Your task to perform on an android device: open chrome privacy settings Image 0: 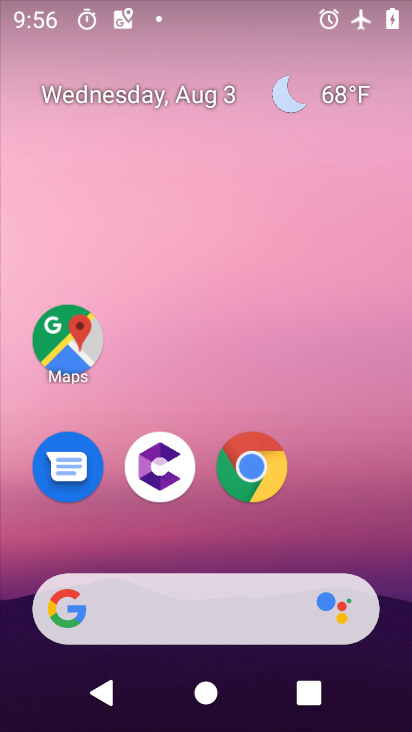
Step 0: drag from (345, 477) to (349, 72)
Your task to perform on an android device: open chrome privacy settings Image 1: 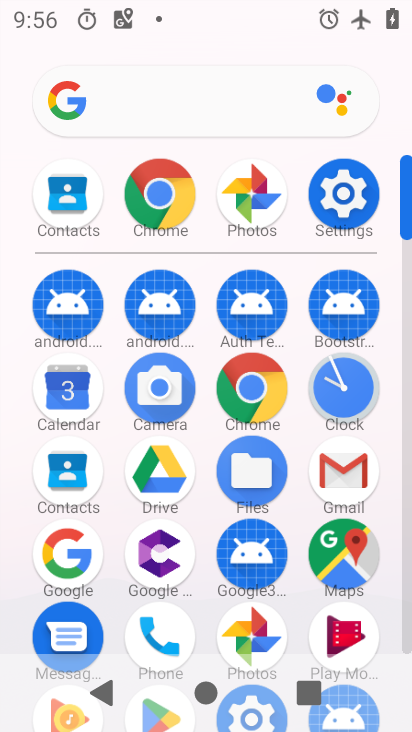
Step 1: click (247, 379)
Your task to perform on an android device: open chrome privacy settings Image 2: 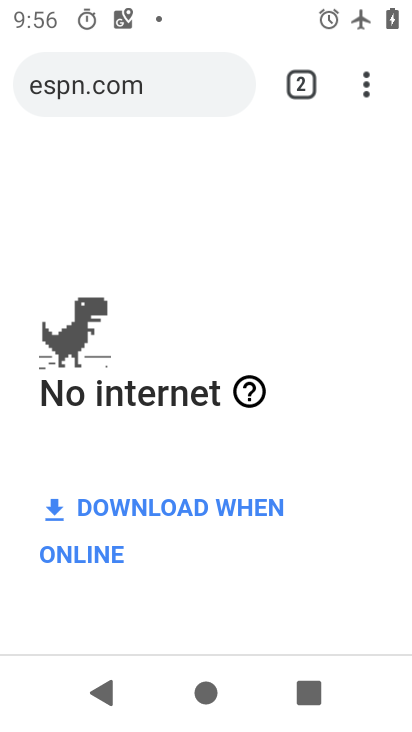
Step 2: drag from (361, 78) to (121, 505)
Your task to perform on an android device: open chrome privacy settings Image 3: 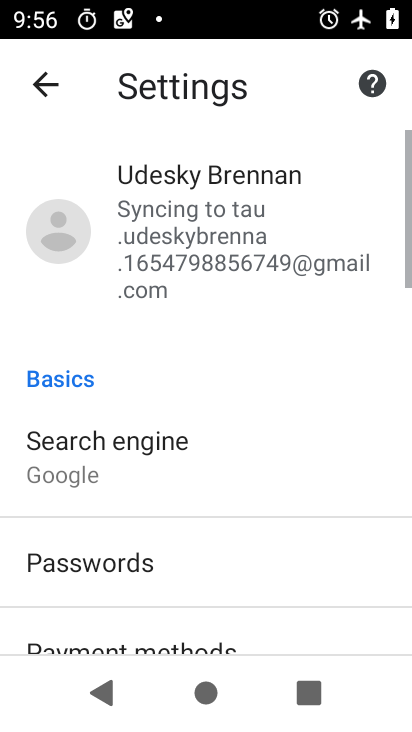
Step 3: drag from (319, 277) to (338, 172)
Your task to perform on an android device: open chrome privacy settings Image 4: 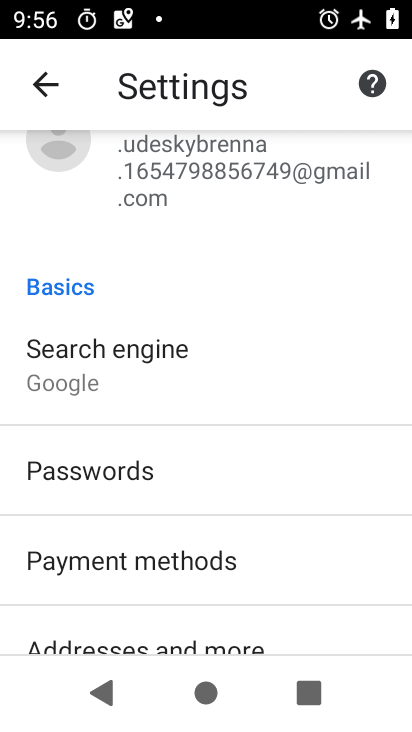
Step 4: drag from (309, 506) to (358, 186)
Your task to perform on an android device: open chrome privacy settings Image 5: 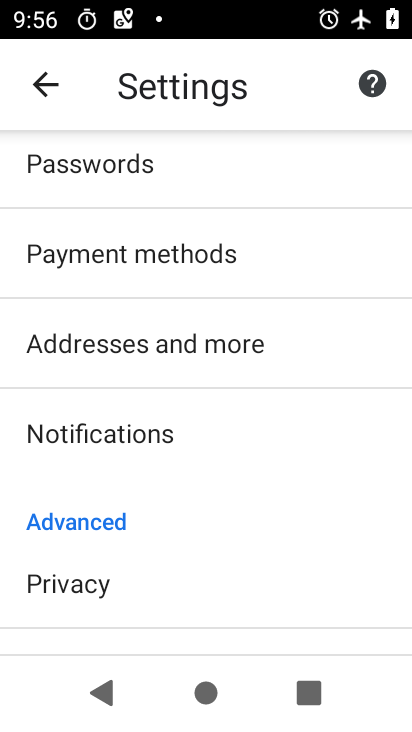
Step 5: click (96, 573)
Your task to perform on an android device: open chrome privacy settings Image 6: 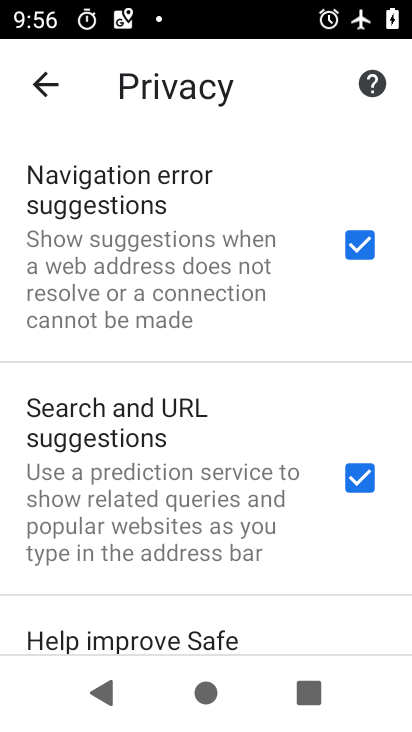
Step 6: task complete